Your task to perform on an android device: turn on translation in the chrome app Image 0: 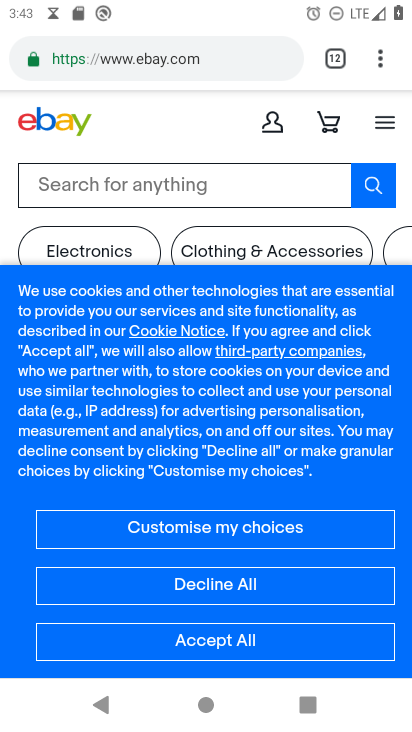
Step 0: press home button
Your task to perform on an android device: turn on translation in the chrome app Image 1: 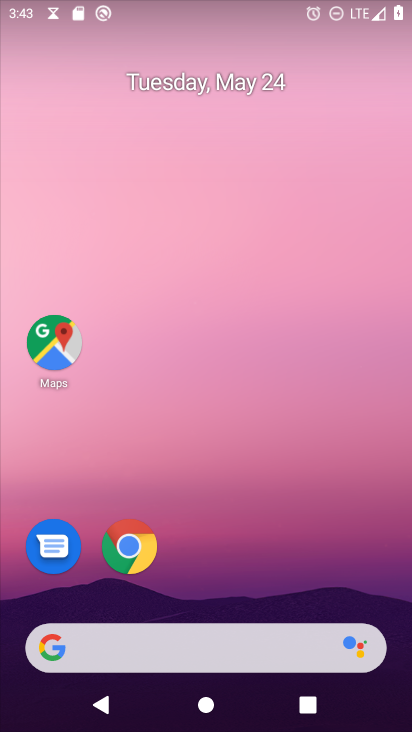
Step 1: drag from (239, 672) to (381, 76)
Your task to perform on an android device: turn on translation in the chrome app Image 2: 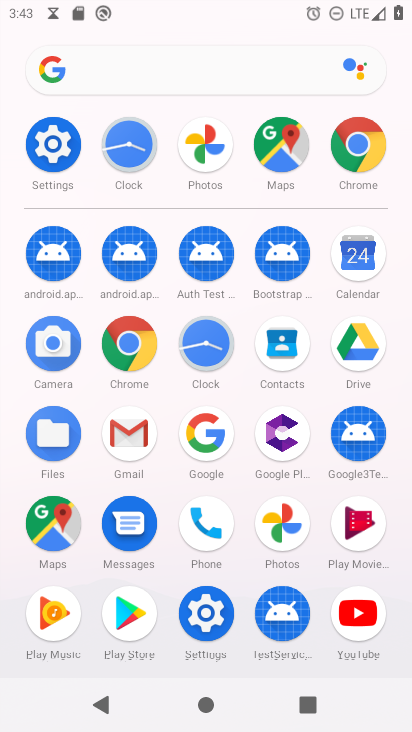
Step 2: click (122, 345)
Your task to perform on an android device: turn on translation in the chrome app Image 3: 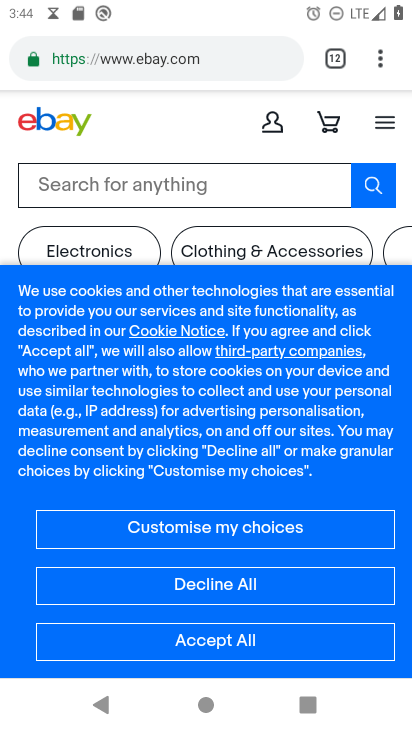
Step 3: drag from (382, 63) to (205, 576)
Your task to perform on an android device: turn on translation in the chrome app Image 4: 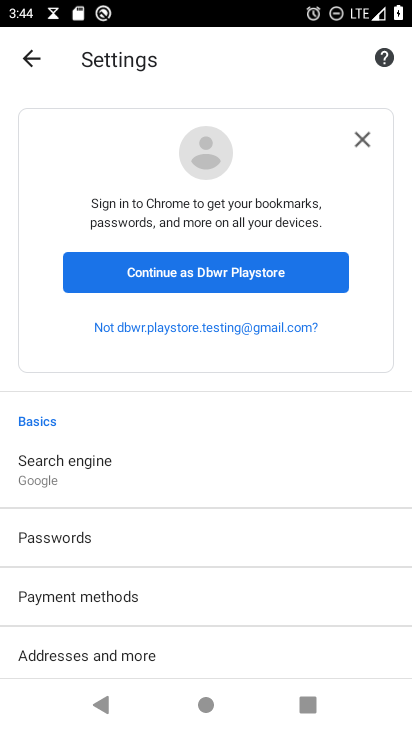
Step 4: drag from (75, 610) to (93, 83)
Your task to perform on an android device: turn on translation in the chrome app Image 5: 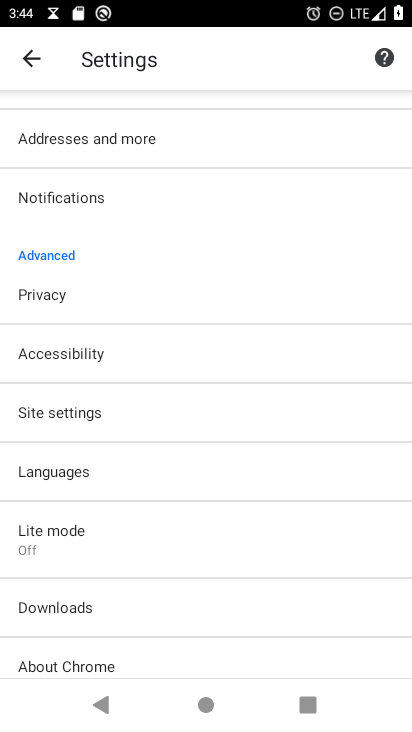
Step 5: click (66, 482)
Your task to perform on an android device: turn on translation in the chrome app Image 6: 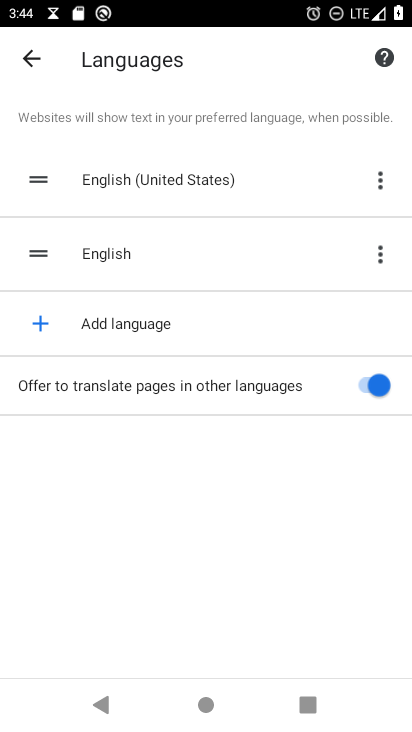
Step 6: task complete